Your task to perform on an android device: Go to settings Image 0: 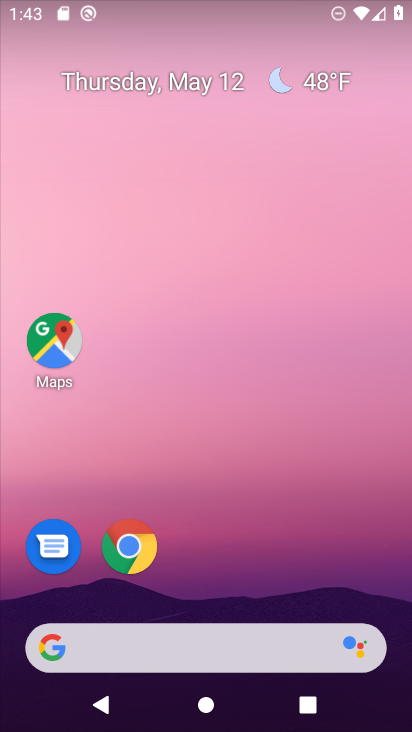
Step 0: drag from (256, 669) to (246, 281)
Your task to perform on an android device: Go to settings Image 1: 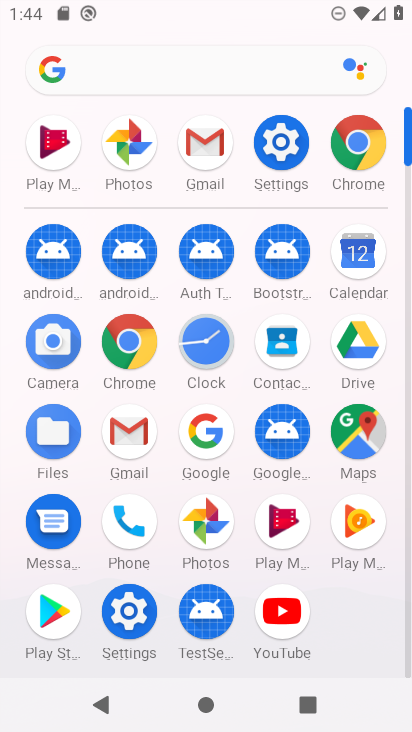
Step 1: click (121, 615)
Your task to perform on an android device: Go to settings Image 2: 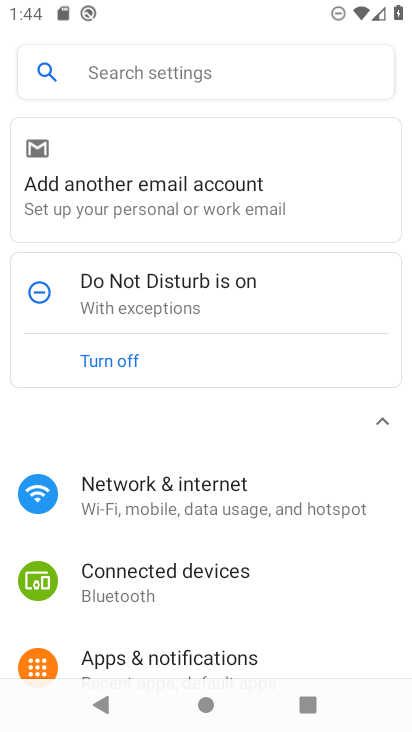
Step 2: task complete